Your task to perform on an android device: Open display settings Image 0: 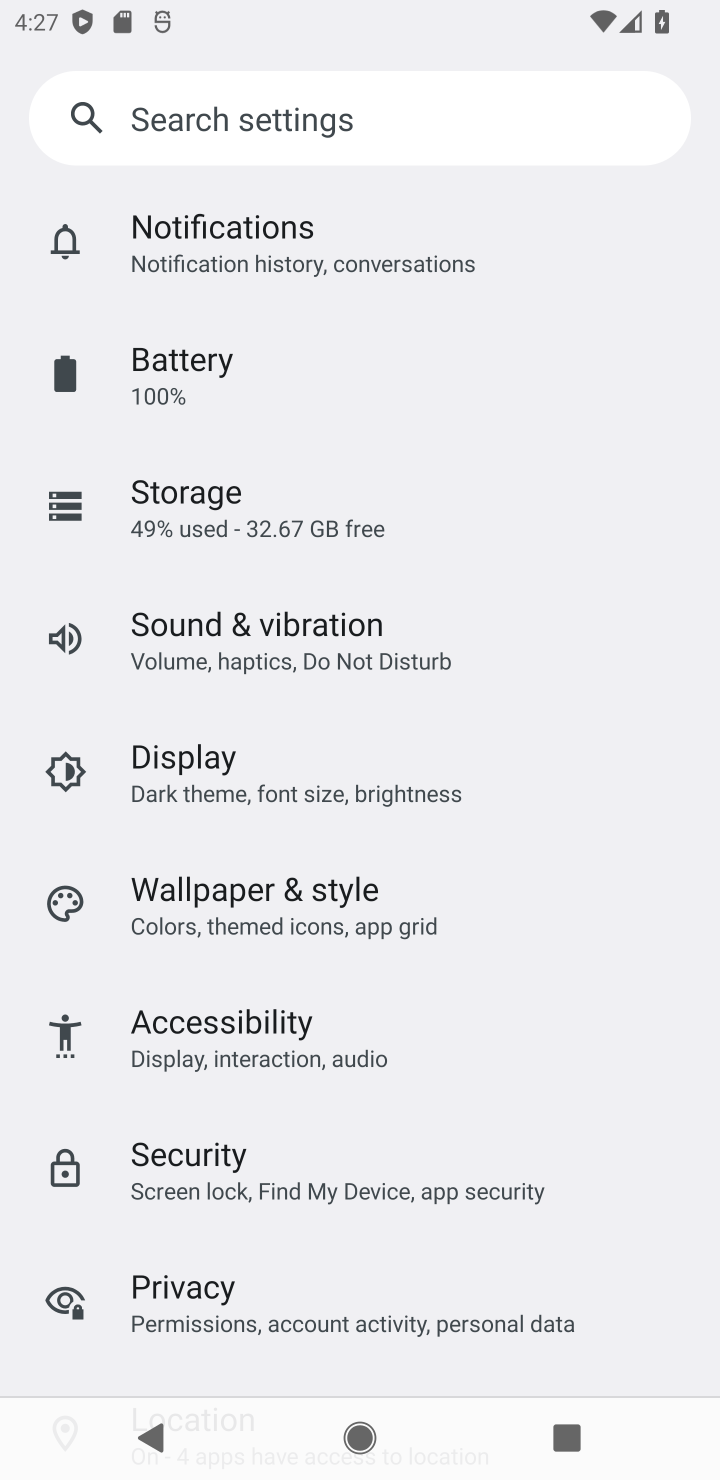
Step 0: click (219, 802)
Your task to perform on an android device: Open display settings Image 1: 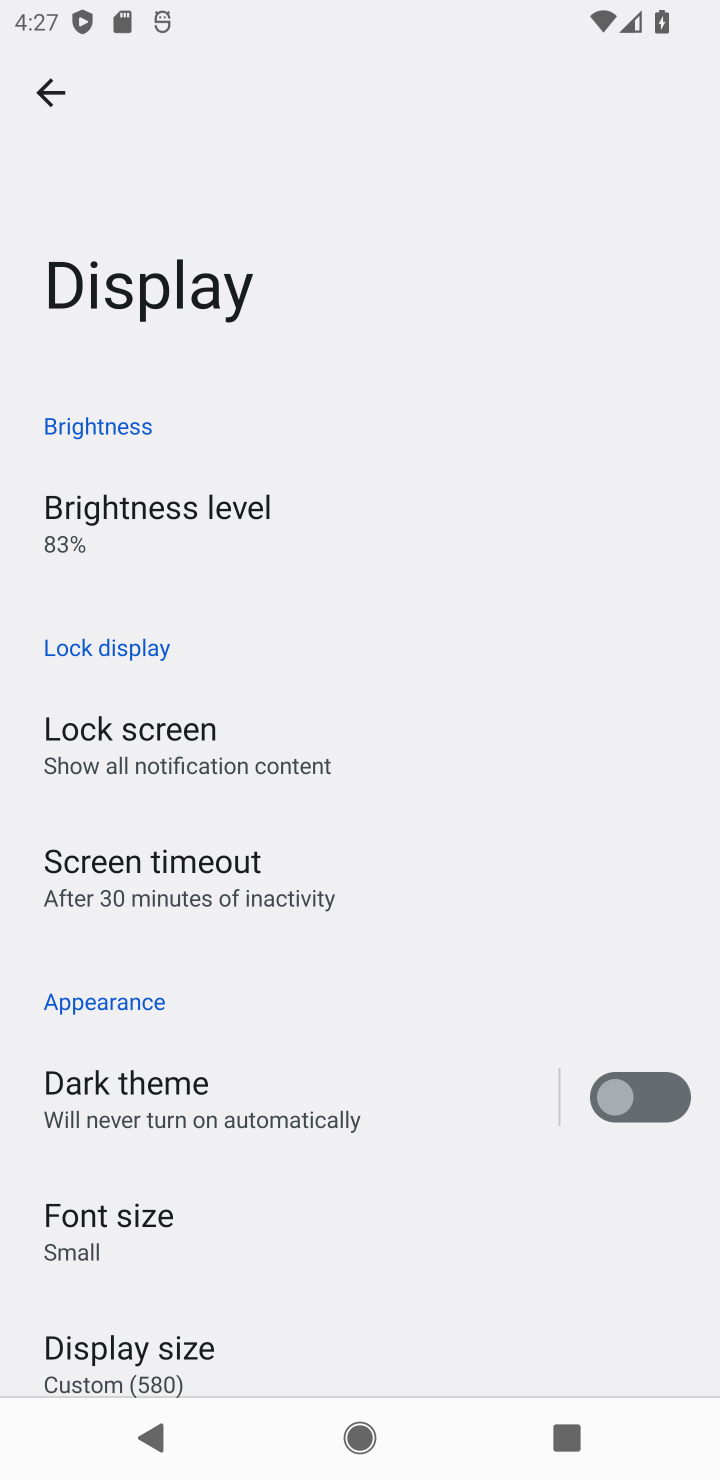
Step 1: task complete